Your task to perform on an android device: turn on notifications settings in the gmail app Image 0: 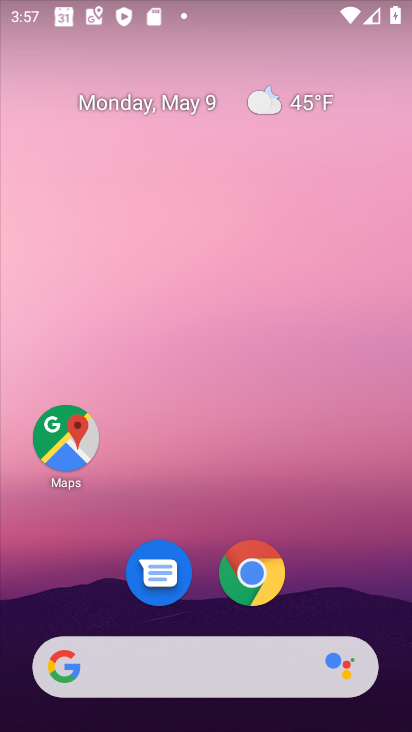
Step 0: drag from (357, 617) to (377, 31)
Your task to perform on an android device: turn on notifications settings in the gmail app Image 1: 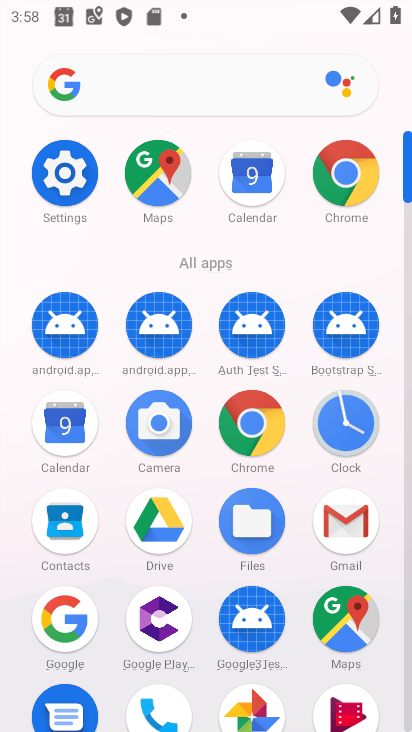
Step 1: click (344, 530)
Your task to perform on an android device: turn on notifications settings in the gmail app Image 2: 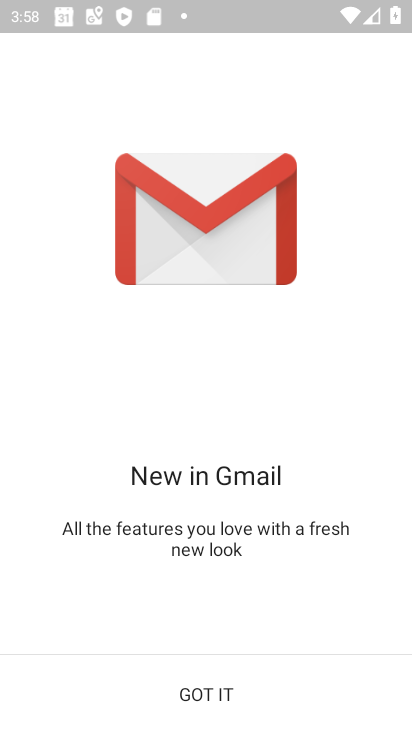
Step 2: click (205, 696)
Your task to perform on an android device: turn on notifications settings in the gmail app Image 3: 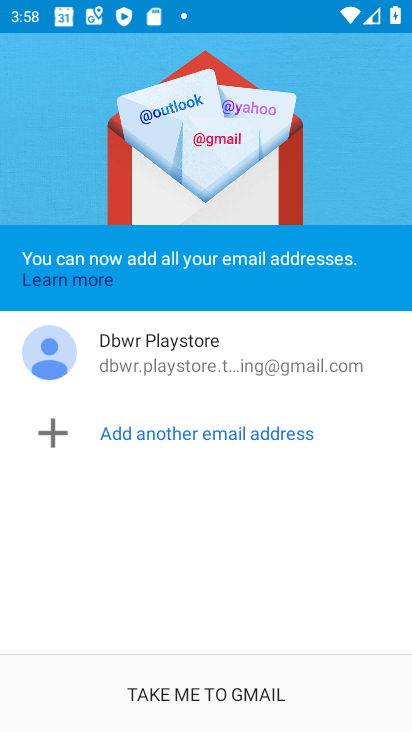
Step 3: click (205, 696)
Your task to perform on an android device: turn on notifications settings in the gmail app Image 4: 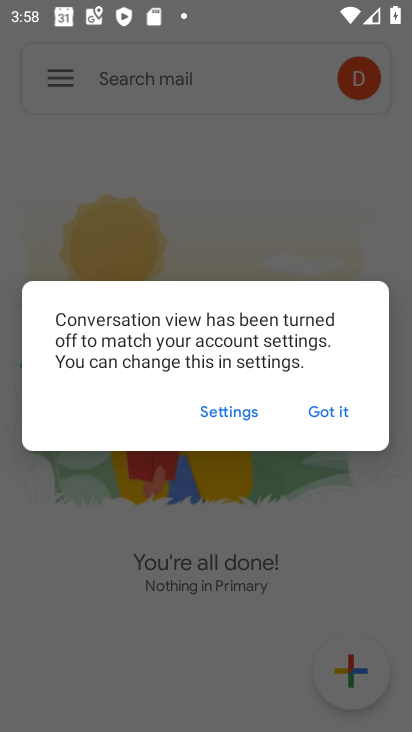
Step 4: click (343, 416)
Your task to perform on an android device: turn on notifications settings in the gmail app Image 5: 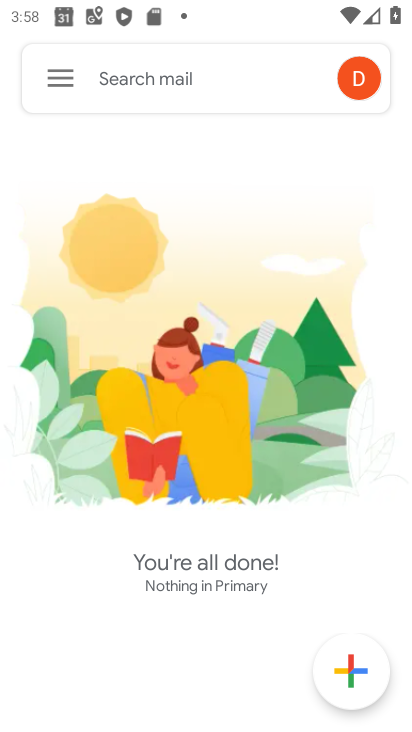
Step 5: click (61, 76)
Your task to perform on an android device: turn on notifications settings in the gmail app Image 6: 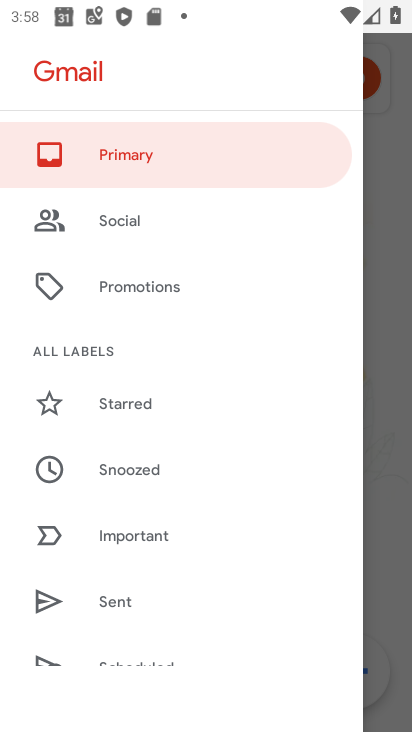
Step 6: drag from (185, 497) to (193, 111)
Your task to perform on an android device: turn on notifications settings in the gmail app Image 7: 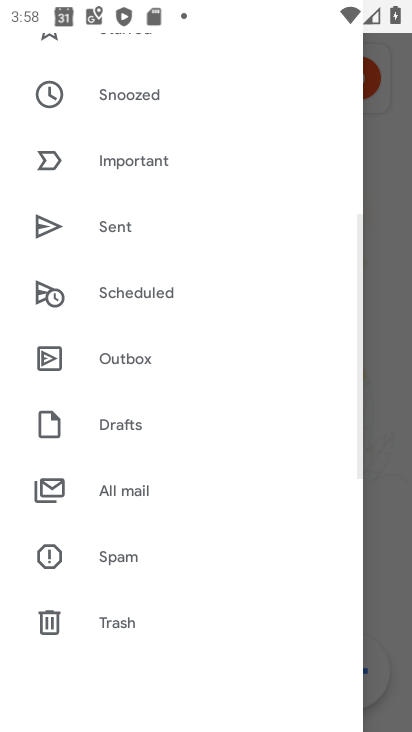
Step 7: drag from (178, 602) to (184, 151)
Your task to perform on an android device: turn on notifications settings in the gmail app Image 8: 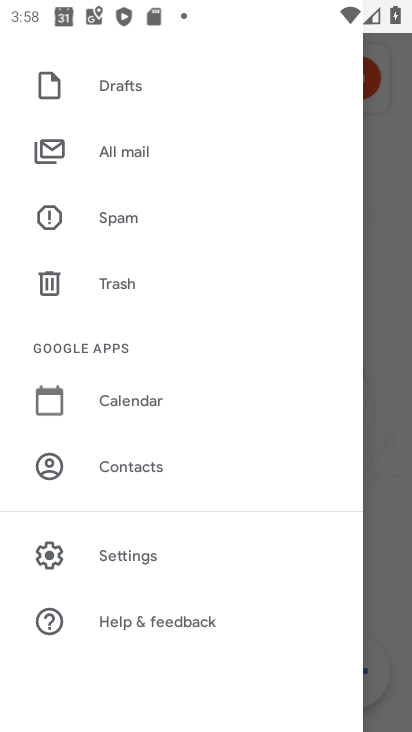
Step 8: click (140, 561)
Your task to perform on an android device: turn on notifications settings in the gmail app Image 9: 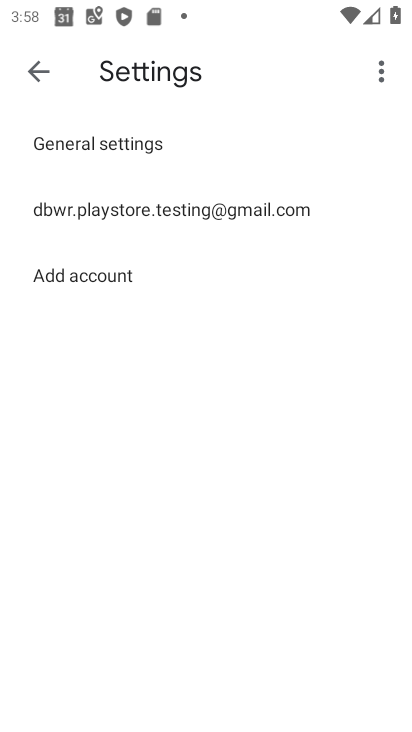
Step 9: click (99, 150)
Your task to perform on an android device: turn on notifications settings in the gmail app Image 10: 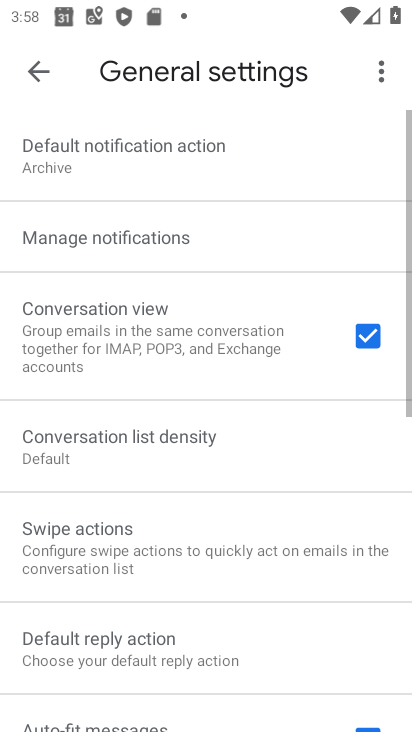
Step 10: click (112, 239)
Your task to perform on an android device: turn on notifications settings in the gmail app Image 11: 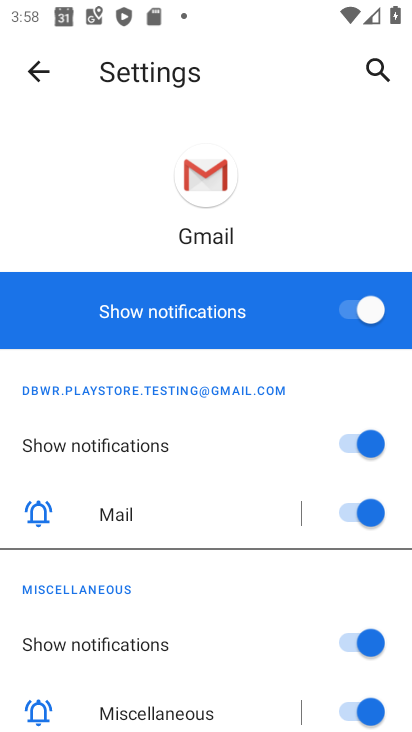
Step 11: task complete